Your task to perform on an android device: Open privacy settings Image 0: 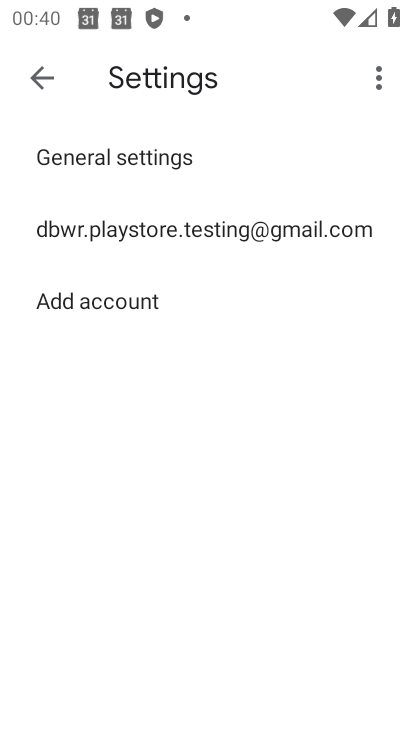
Step 0: press home button
Your task to perform on an android device: Open privacy settings Image 1: 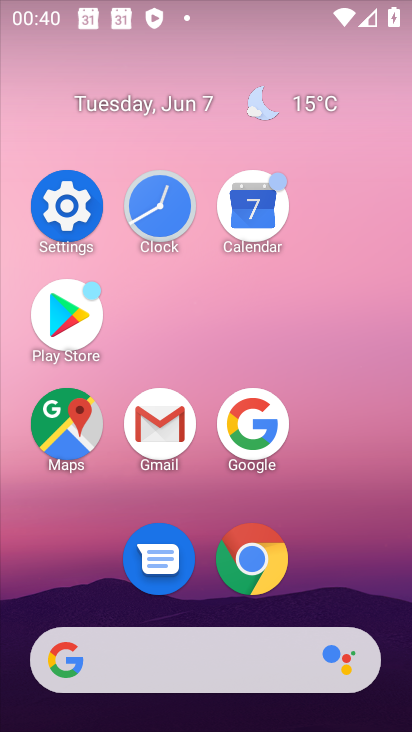
Step 1: click (66, 221)
Your task to perform on an android device: Open privacy settings Image 2: 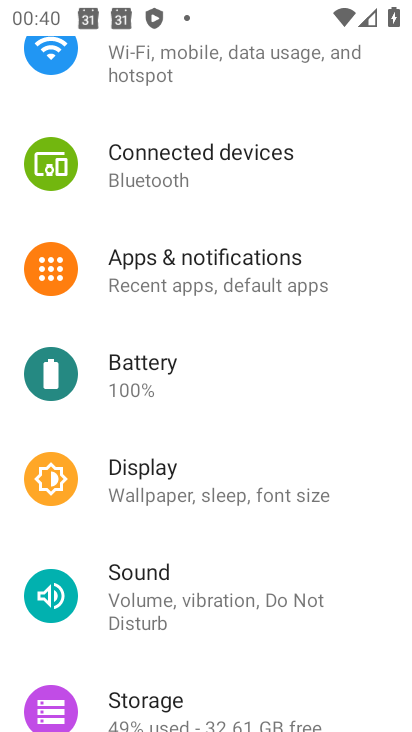
Step 2: drag from (271, 563) to (263, 195)
Your task to perform on an android device: Open privacy settings Image 3: 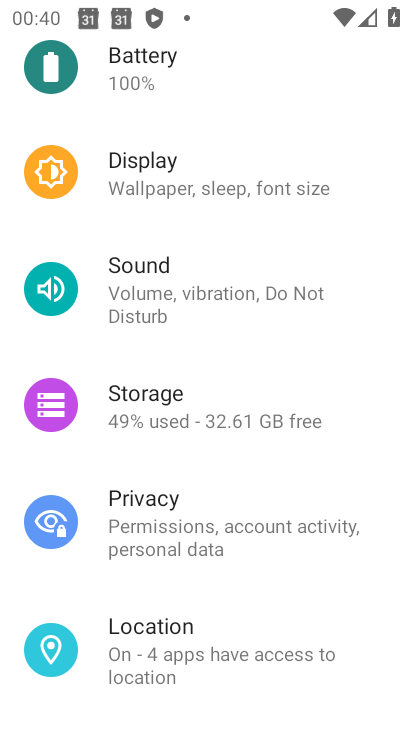
Step 3: click (246, 515)
Your task to perform on an android device: Open privacy settings Image 4: 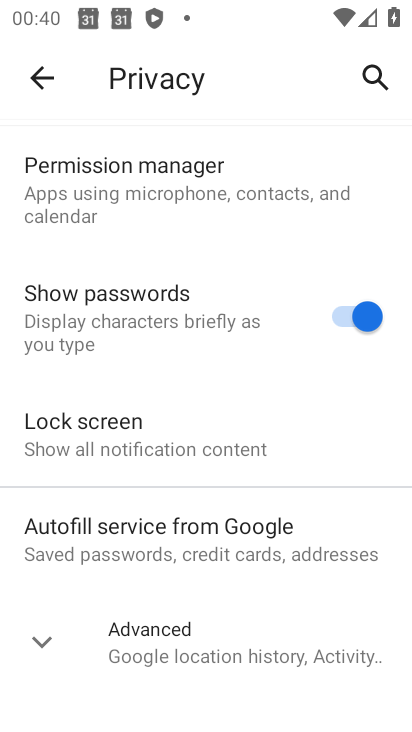
Step 4: task complete